Your task to perform on an android device: uninstall "NewsBreak: Local News & Alerts" Image 0: 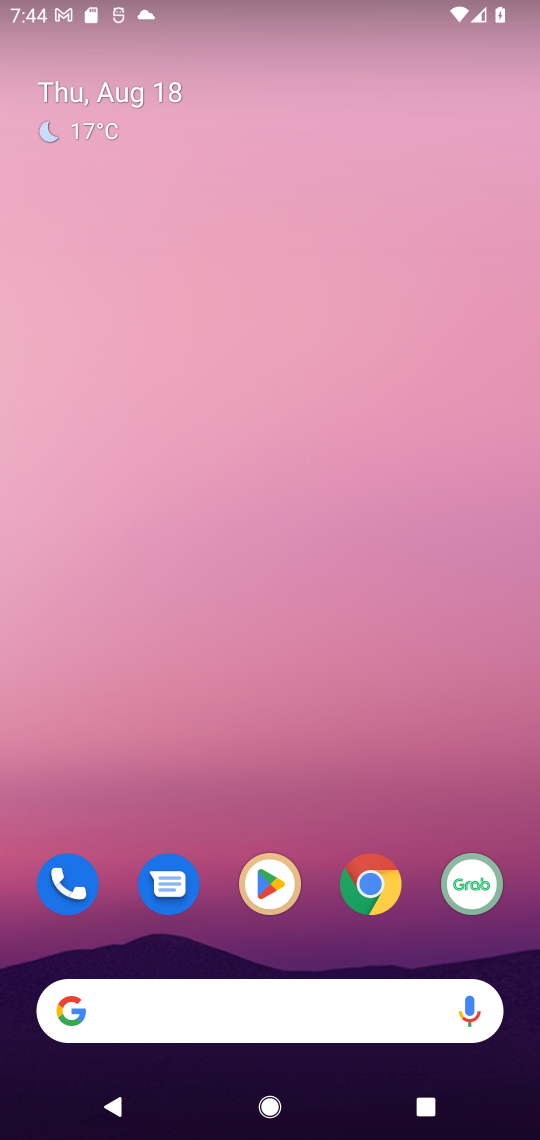
Step 0: drag from (235, 1017) to (386, 121)
Your task to perform on an android device: uninstall "NewsBreak: Local News & Alerts" Image 1: 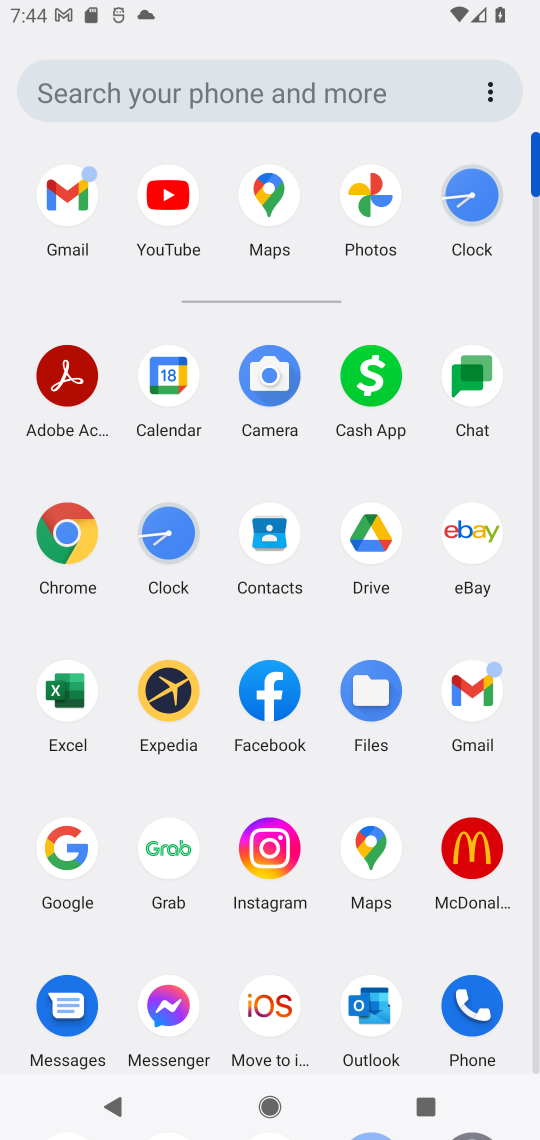
Step 1: drag from (327, 636) to (316, 99)
Your task to perform on an android device: uninstall "NewsBreak: Local News & Alerts" Image 2: 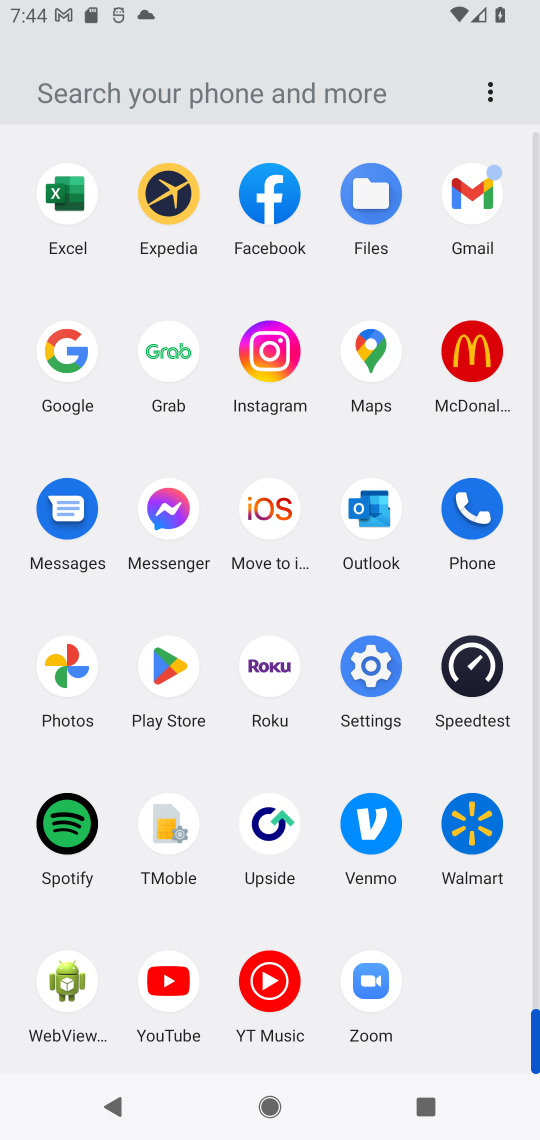
Step 2: click (171, 672)
Your task to perform on an android device: uninstall "NewsBreak: Local News & Alerts" Image 3: 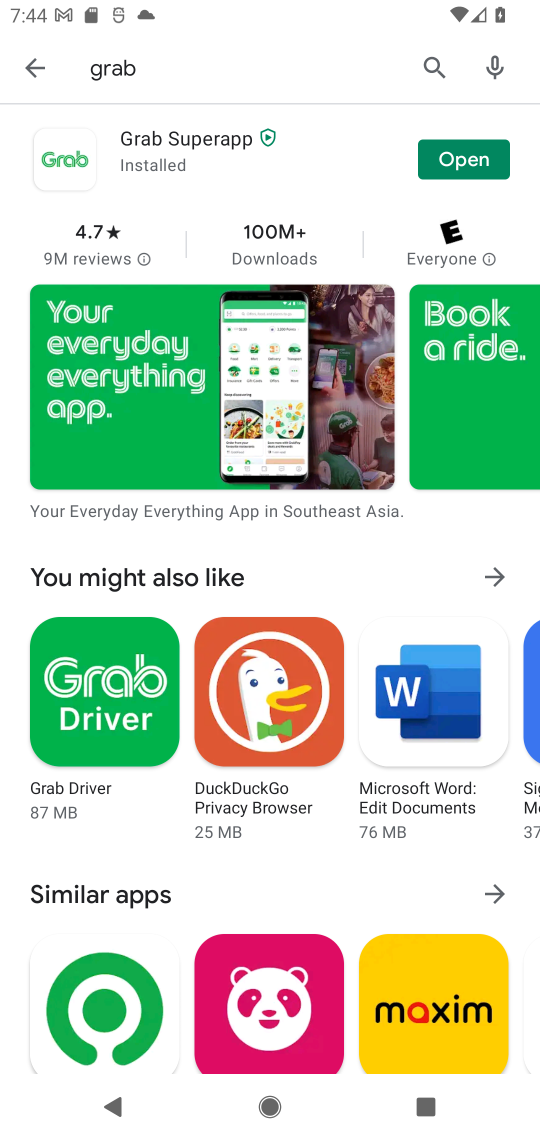
Step 3: press back button
Your task to perform on an android device: uninstall "NewsBreak: Local News & Alerts" Image 4: 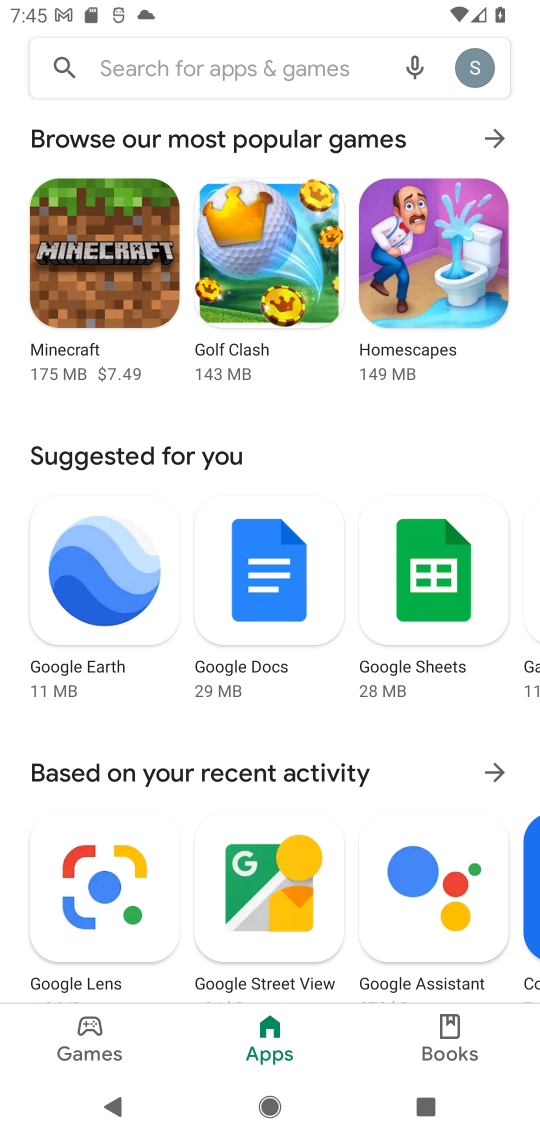
Step 4: click (284, 84)
Your task to perform on an android device: uninstall "NewsBreak: Local News & Alerts" Image 5: 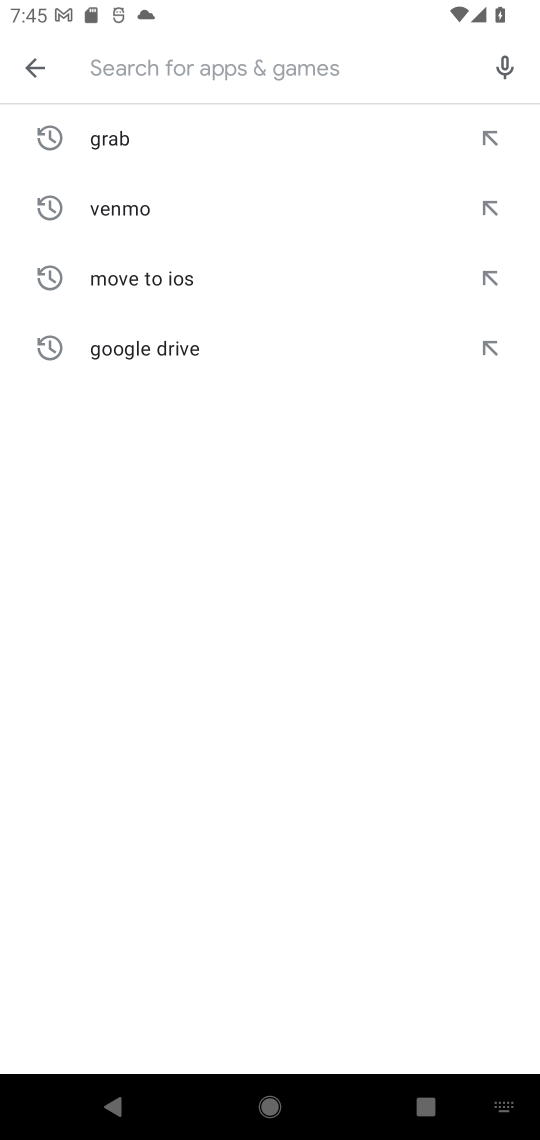
Step 5: click (356, 78)
Your task to perform on an android device: uninstall "NewsBreak: Local News & Alerts" Image 6: 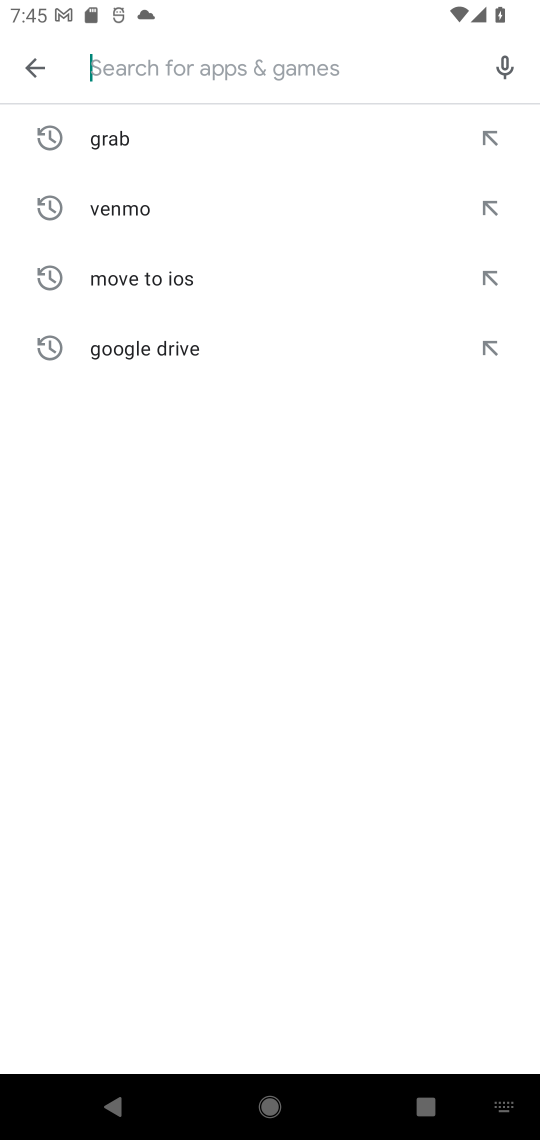
Step 6: type "NewsBreak: Local News & Alerts"
Your task to perform on an android device: uninstall "NewsBreak: Local News & Alerts" Image 7: 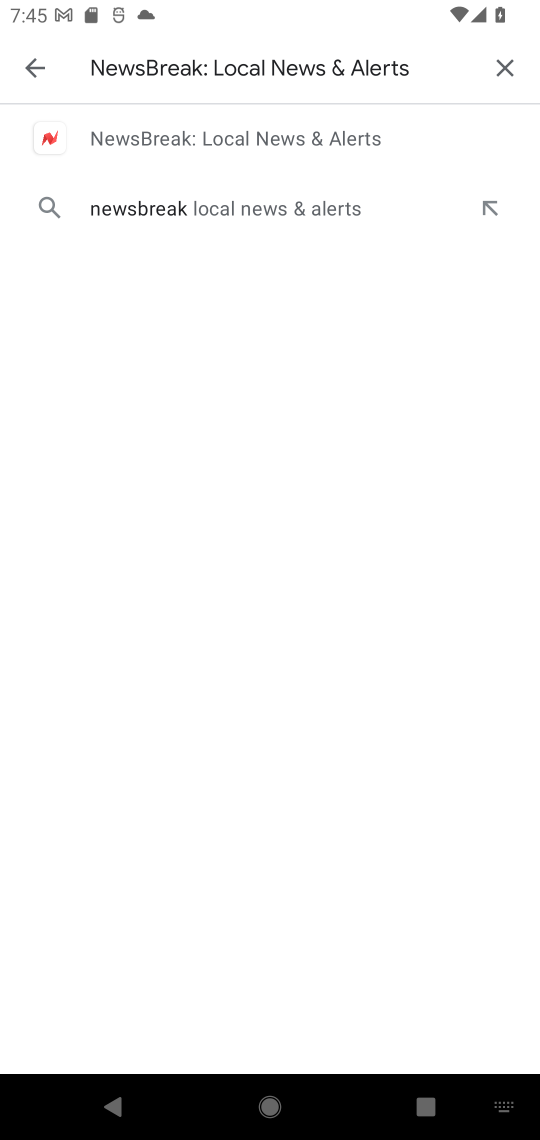
Step 7: click (347, 144)
Your task to perform on an android device: uninstall "NewsBreak: Local News & Alerts" Image 8: 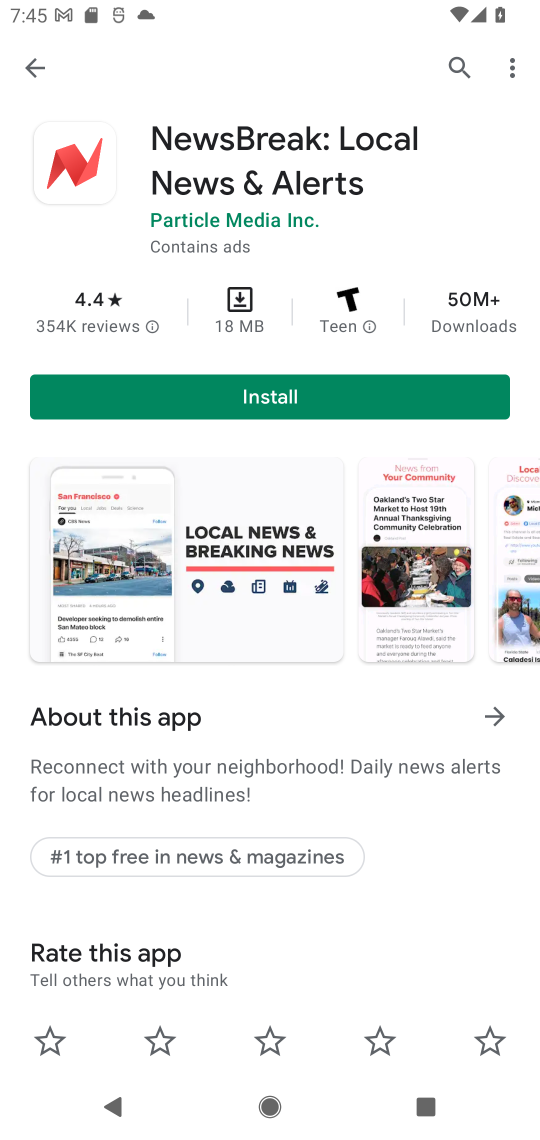
Step 8: task complete